Your task to perform on an android device: Open Android settings Image 0: 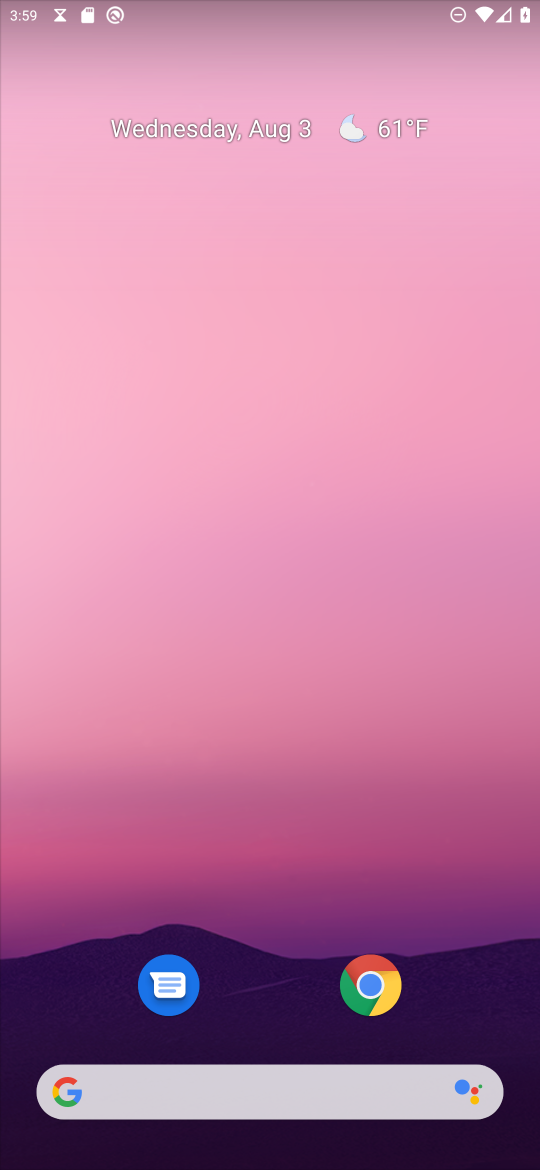
Step 0: drag from (256, 894) to (364, 11)
Your task to perform on an android device: Open Android settings Image 1: 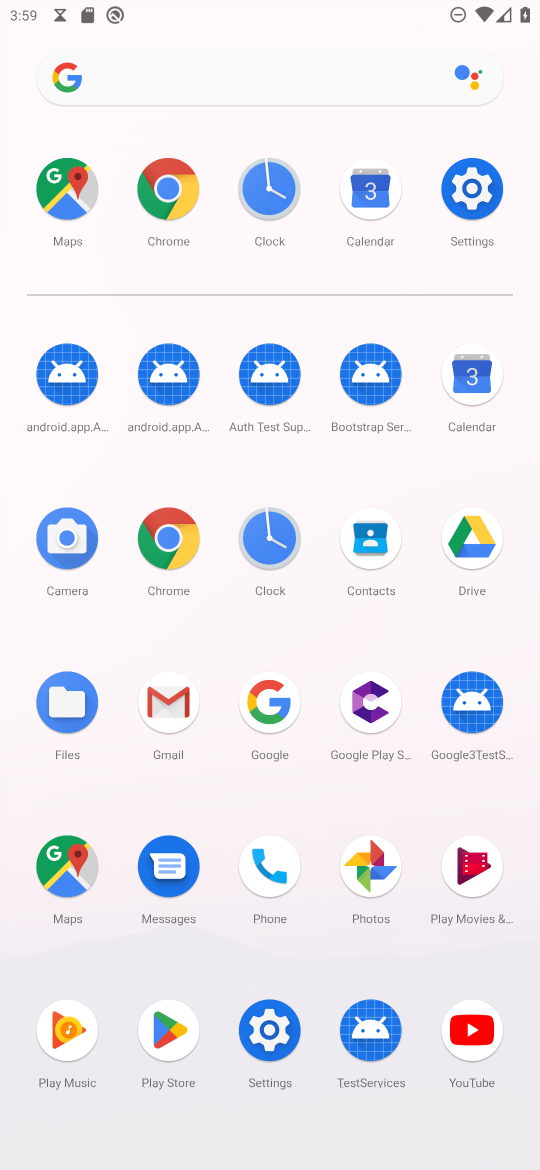
Step 1: click (480, 197)
Your task to perform on an android device: Open Android settings Image 2: 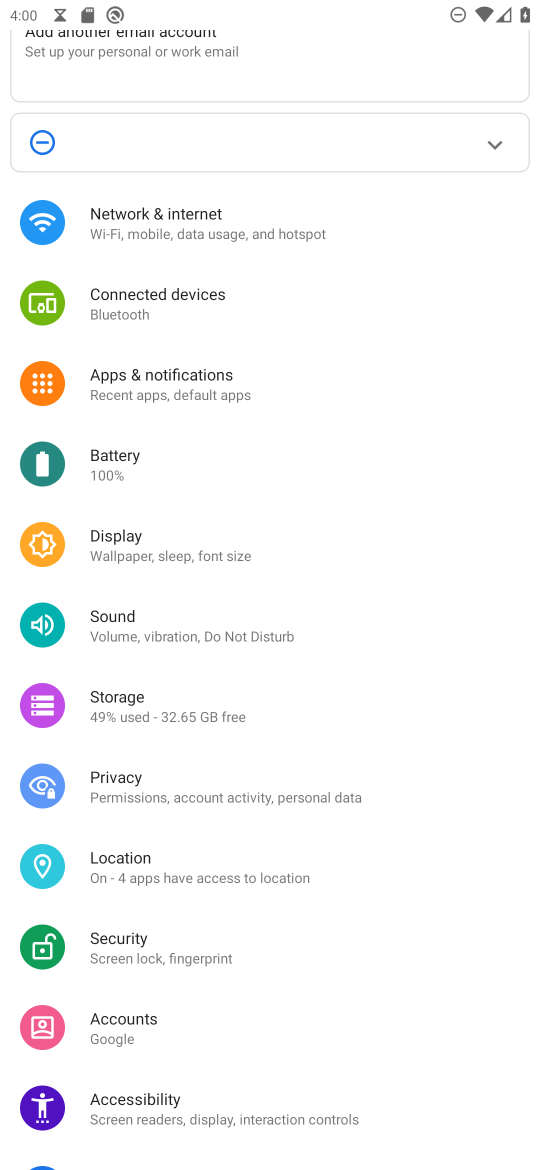
Step 2: drag from (259, 959) to (252, 7)
Your task to perform on an android device: Open Android settings Image 3: 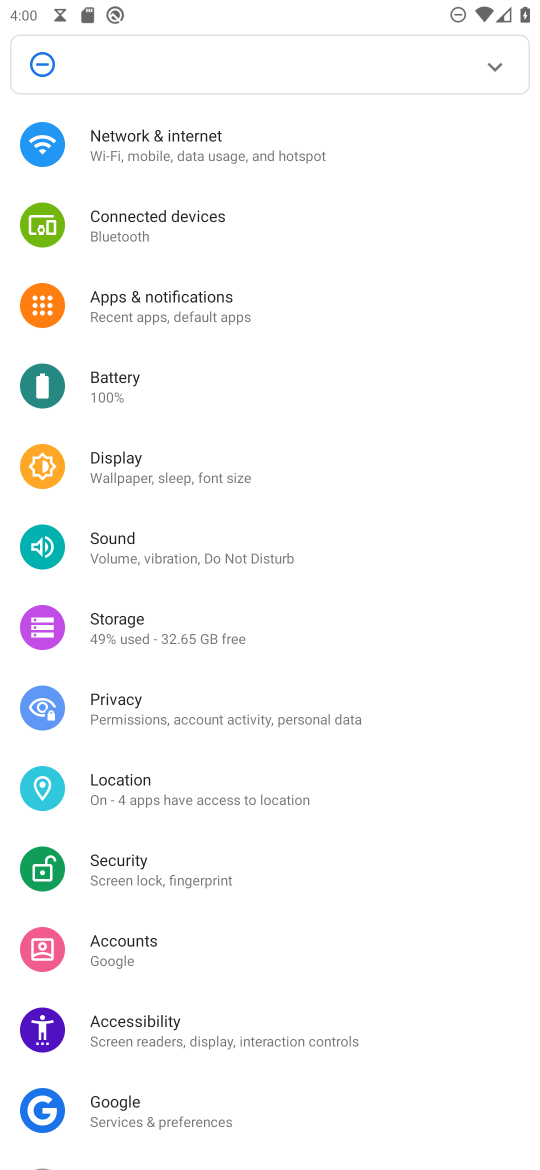
Step 3: drag from (294, 972) to (283, 11)
Your task to perform on an android device: Open Android settings Image 4: 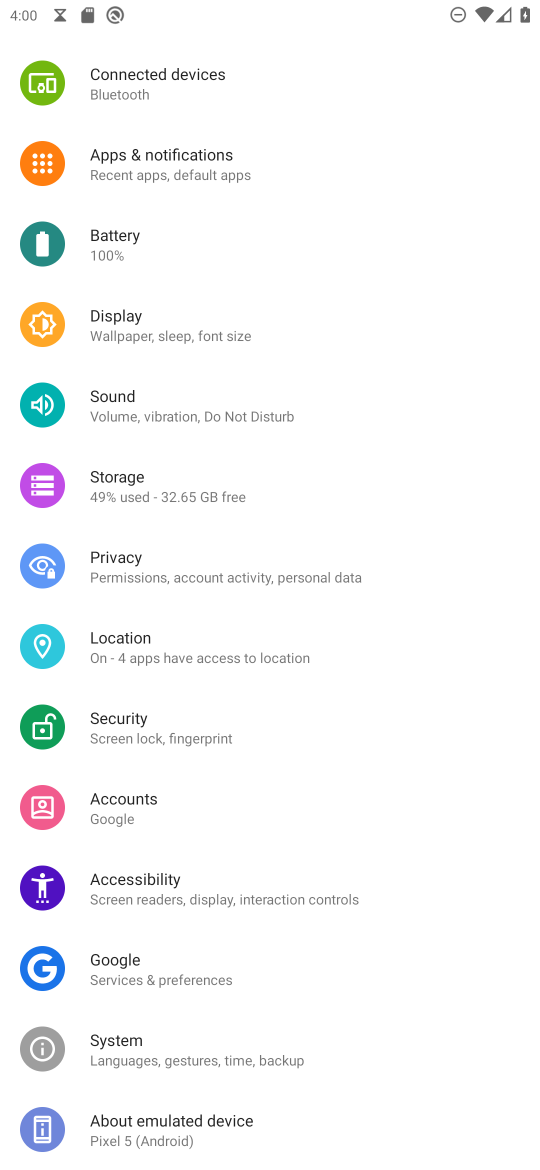
Step 4: click (232, 1067)
Your task to perform on an android device: Open Android settings Image 5: 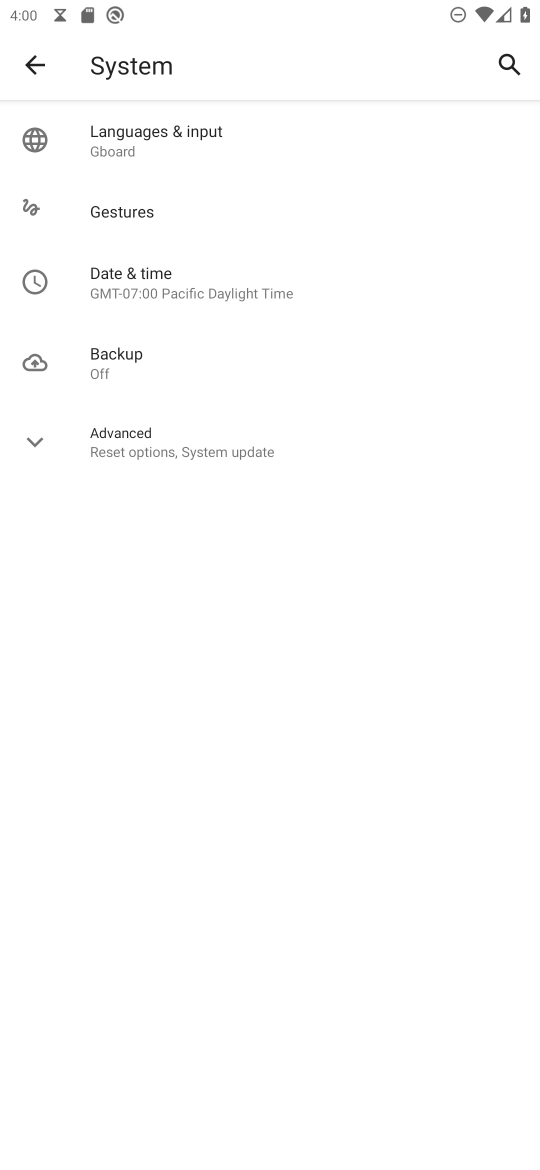
Step 5: task complete